Your task to perform on an android device: Open the calendar and show me this week's events? Image 0: 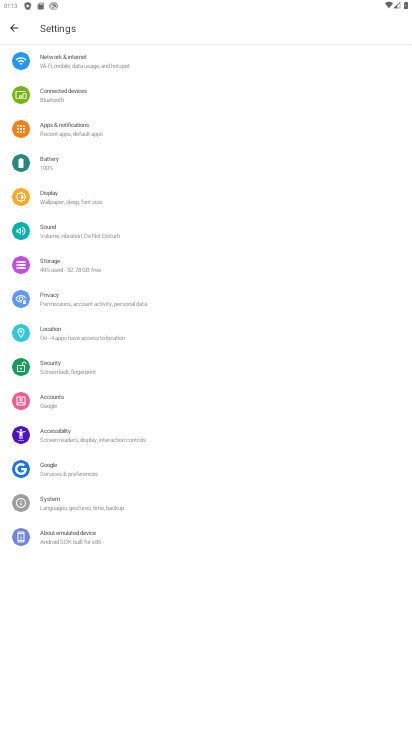
Step 0: press home button
Your task to perform on an android device: Open the calendar and show me this week's events? Image 1: 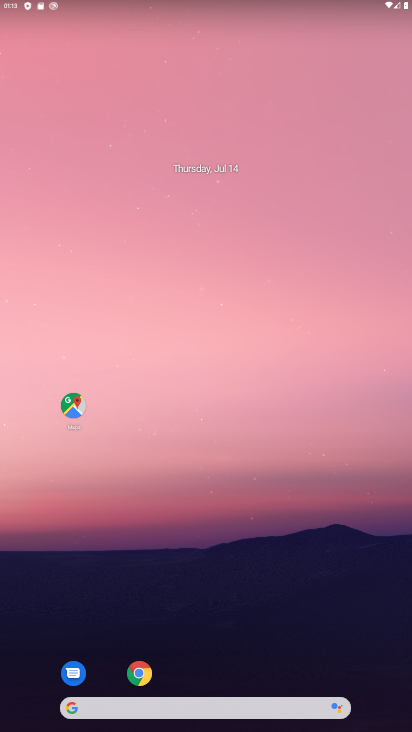
Step 1: drag from (276, 648) to (239, 247)
Your task to perform on an android device: Open the calendar and show me this week's events? Image 2: 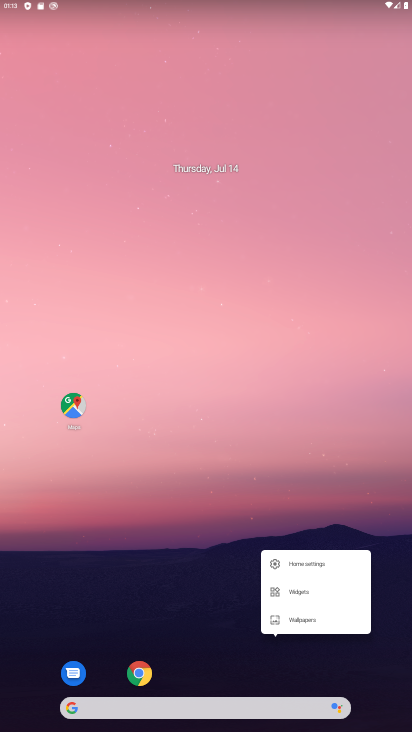
Step 2: click (239, 247)
Your task to perform on an android device: Open the calendar and show me this week's events? Image 3: 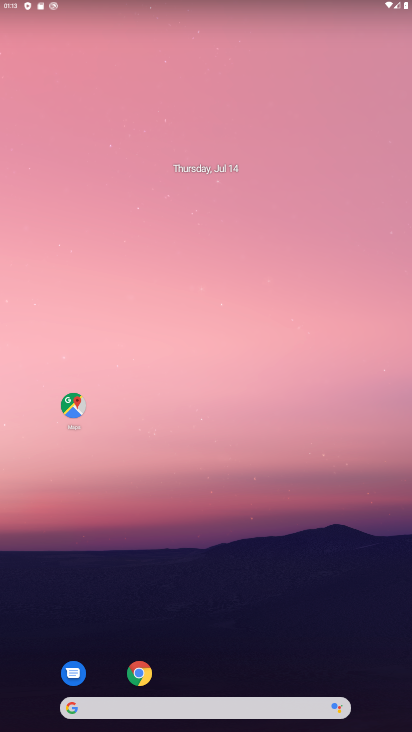
Step 3: drag from (195, 670) to (201, 300)
Your task to perform on an android device: Open the calendar and show me this week's events? Image 4: 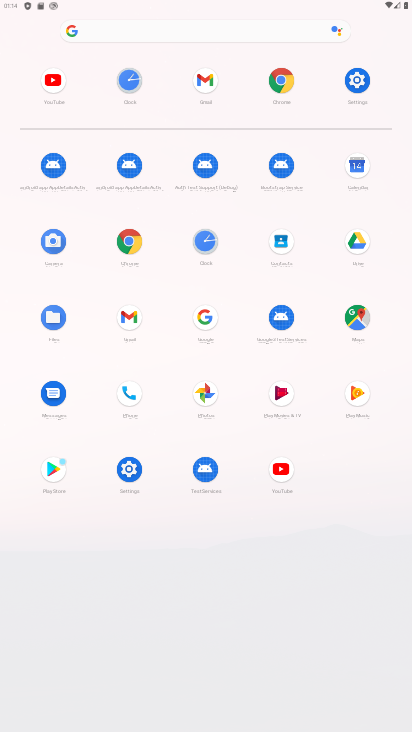
Step 4: click (348, 171)
Your task to perform on an android device: Open the calendar and show me this week's events? Image 5: 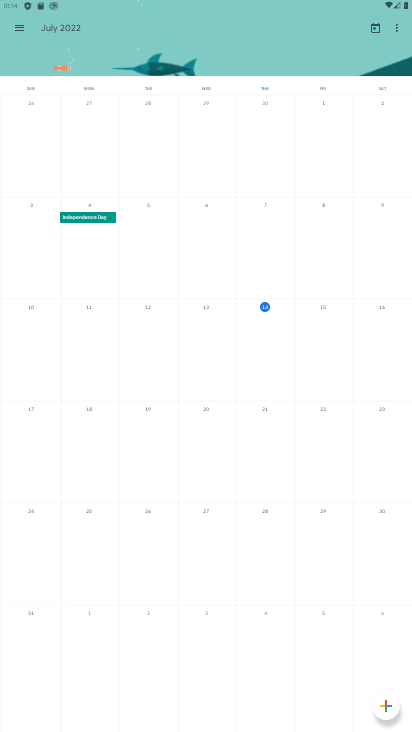
Step 5: task complete